Your task to perform on an android device: Open Chrome and go to settings Image 0: 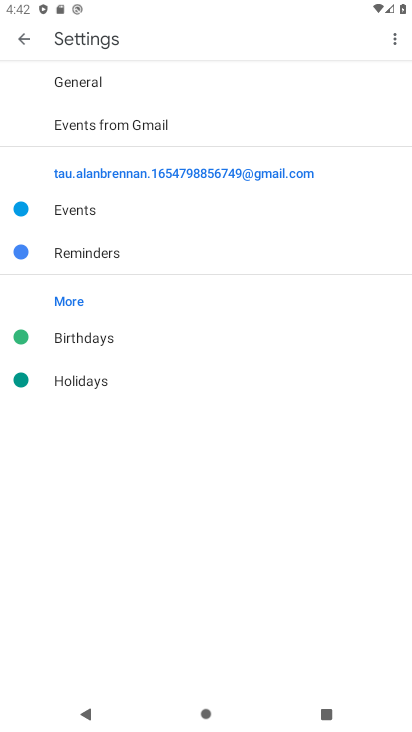
Step 0: press home button
Your task to perform on an android device: Open Chrome and go to settings Image 1: 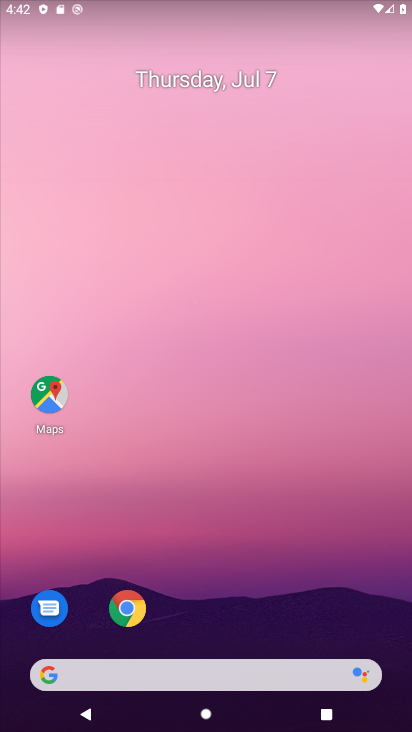
Step 1: drag from (219, 634) to (209, 110)
Your task to perform on an android device: Open Chrome and go to settings Image 2: 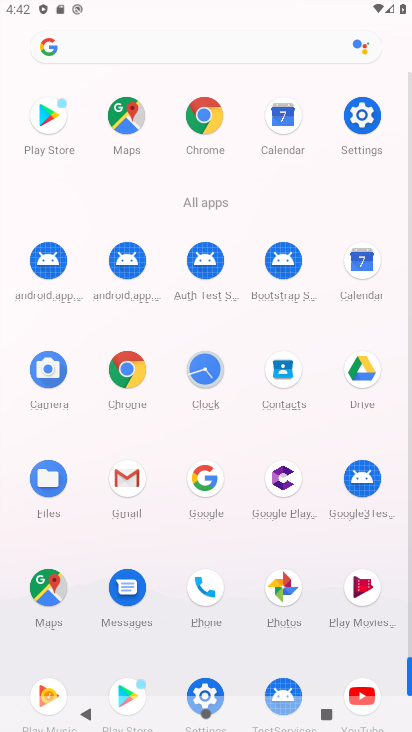
Step 2: click (205, 111)
Your task to perform on an android device: Open Chrome and go to settings Image 3: 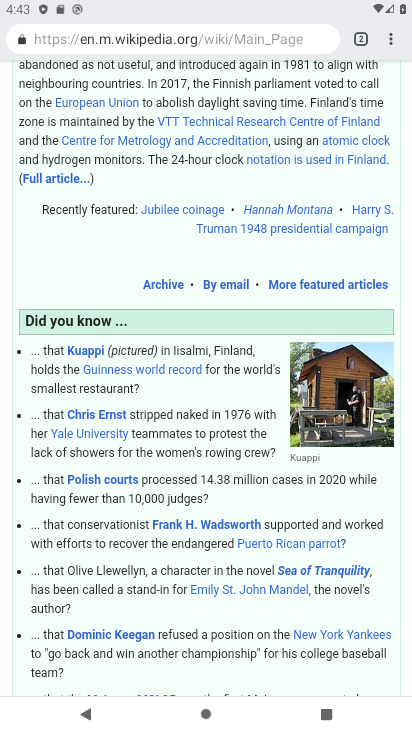
Step 3: click (390, 38)
Your task to perform on an android device: Open Chrome and go to settings Image 4: 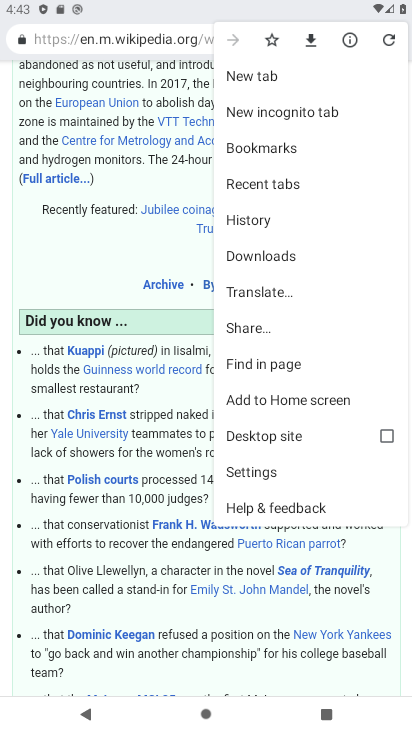
Step 4: click (263, 466)
Your task to perform on an android device: Open Chrome and go to settings Image 5: 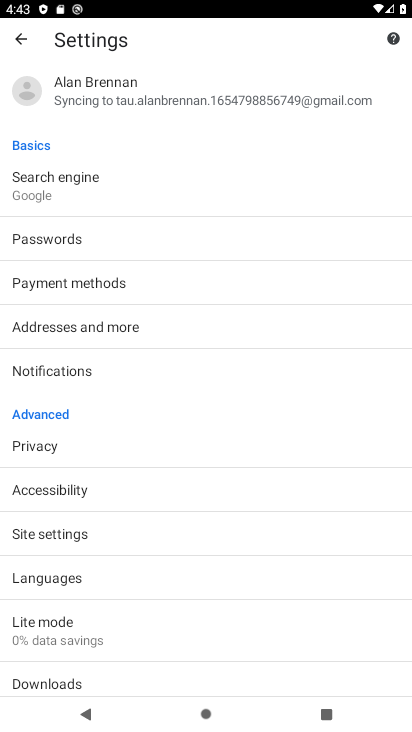
Step 5: task complete